Your task to perform on an android device: Go to Amazon Image 0: 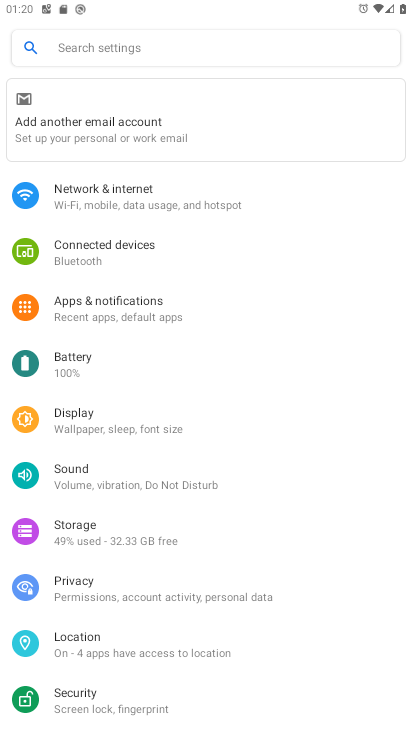
Step 0: press home button
Your task to perform on an android device: Go to Amazon Image 1: 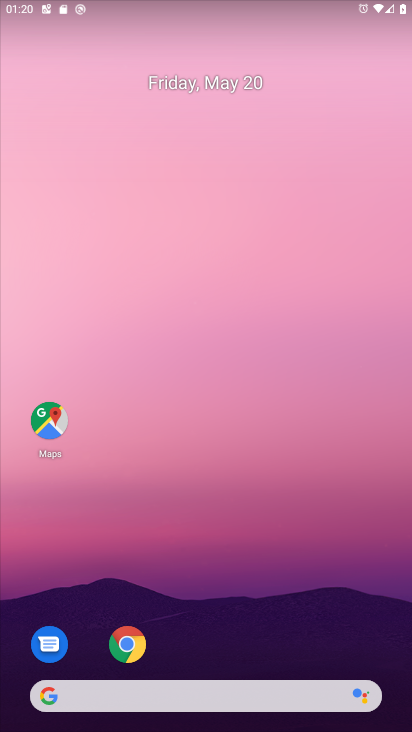
Step 1: click (130, 638)
Your task to perform on an android device: Go to Amazon Image 2: 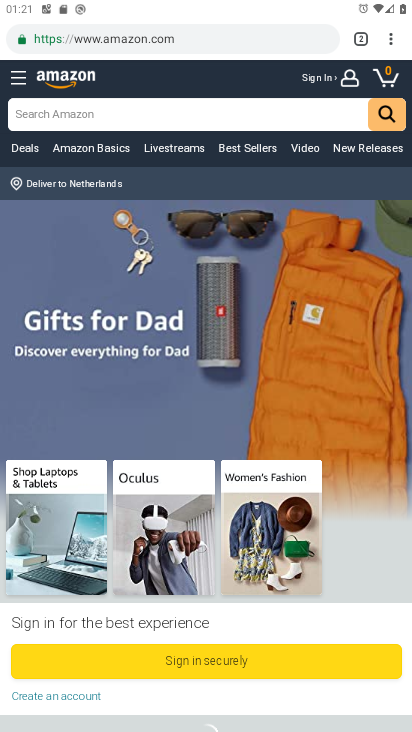
Step 2: task complete